Your task to perform on an android device: Turn on the flashlight Image 0: 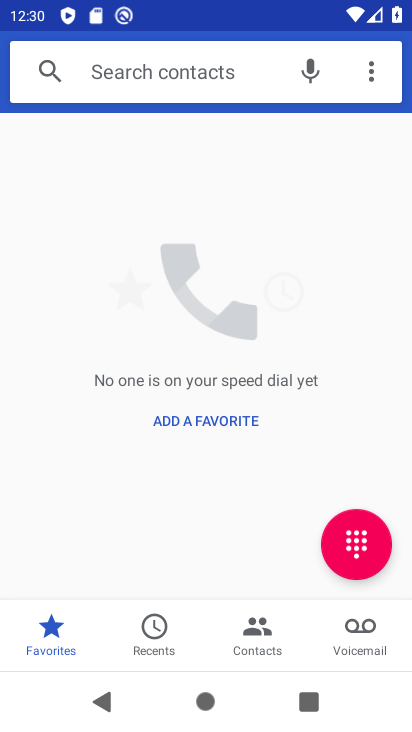
Step 0: press home button
Your task to perform on an android device: Turn on the flashlight Image 1: 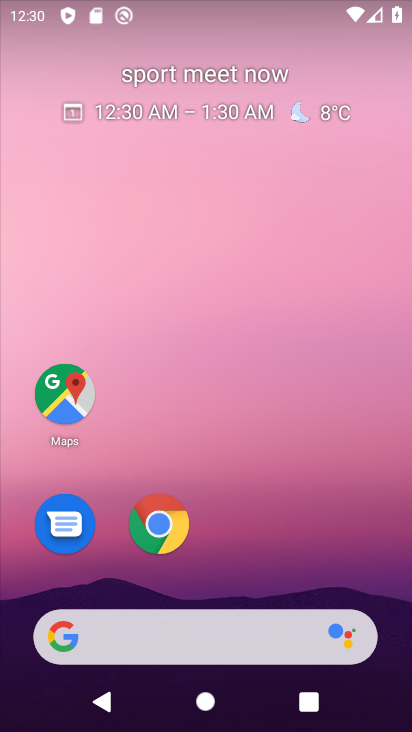
Step 1: drag from (225, 521) to (298, 68)
Your task to perform on an android device: Turn on the flashlight Image 2: 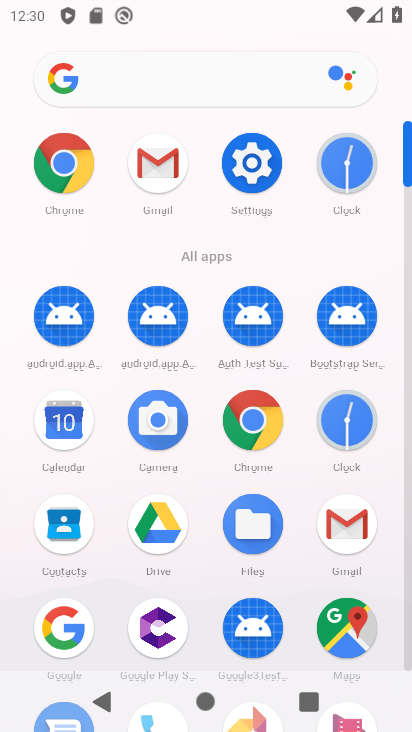
Step 2: click (252, 153)
Your task to perform on an android device: Turn on the flashlight Image 3: 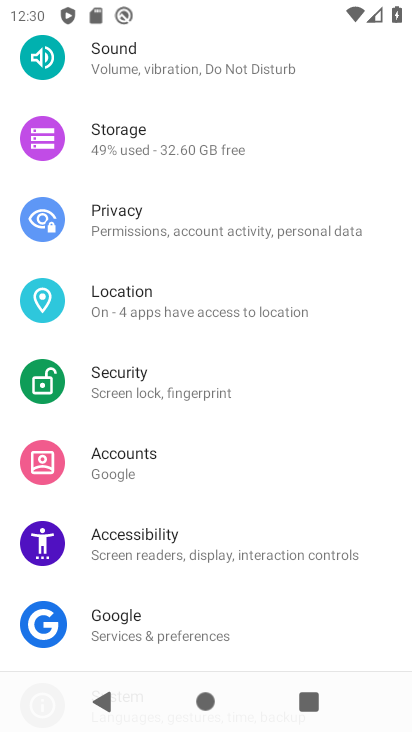
Step 3: drag from (239, 143) to (184, 652)
Your task to perform on an android device: Turn on the flashlight Image 4: 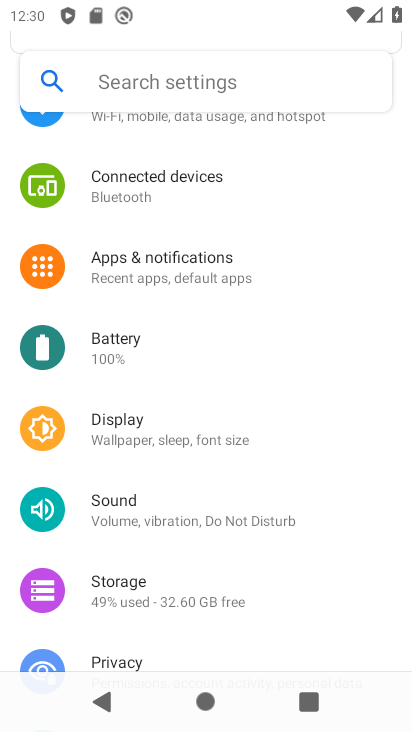
Step 4: click (248, 81)
Your task to perform on an android device: Turn on the flashlight Image 5: 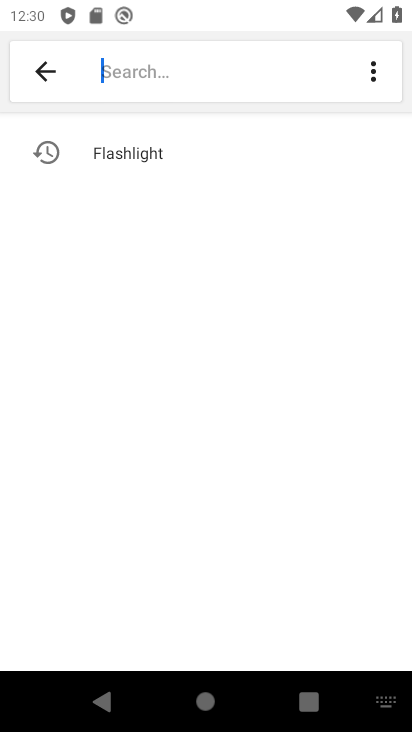
Step 5: click (131, 150)
Your task to perform on an android device: Turn on the flashlight Image 6: 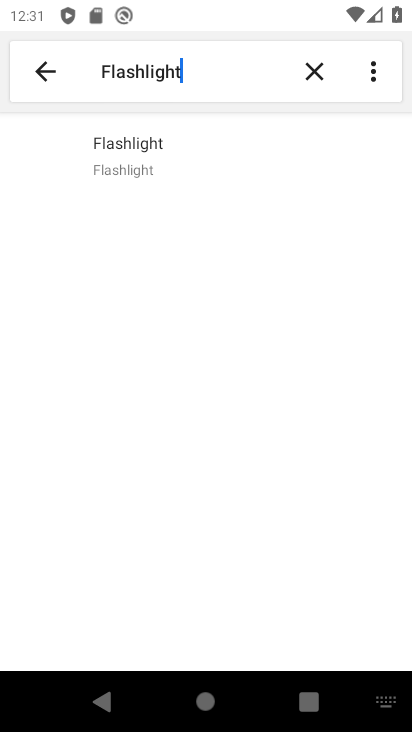
Step 6: task complete